Your task to perform on an android device: Open maps Image 0: 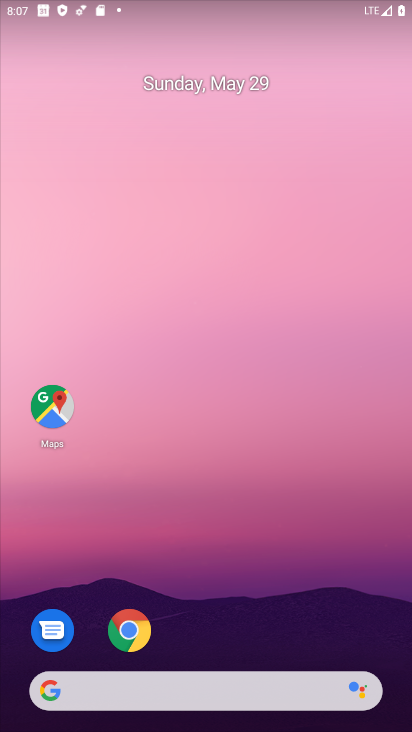
Step 0: drag from (206, 652) to (33, 7)
Your task to perform on an android device: Open maps Image 1: 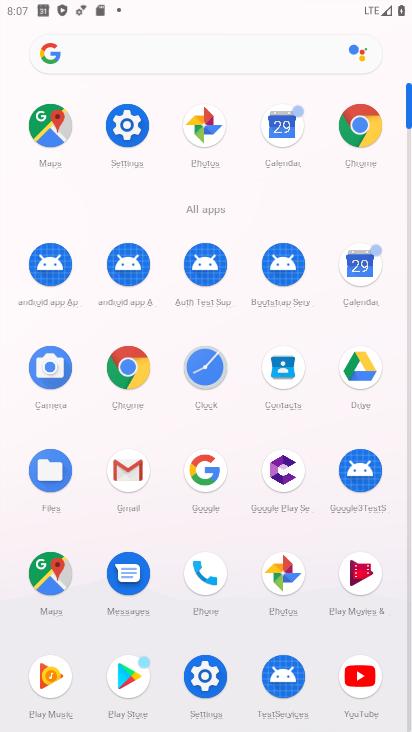
Step 1: click (45, 568)
Your task to perform on an android device: Open maps Image 2: 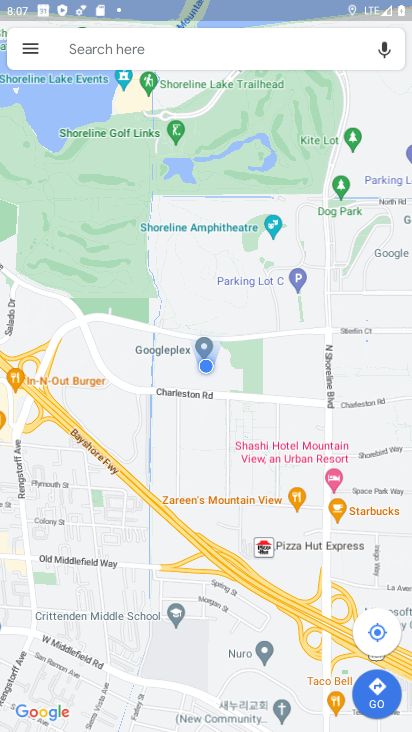
Step 2: task complete